Your task to perform on an android device: Do I have any events tomorrow? Image 0: 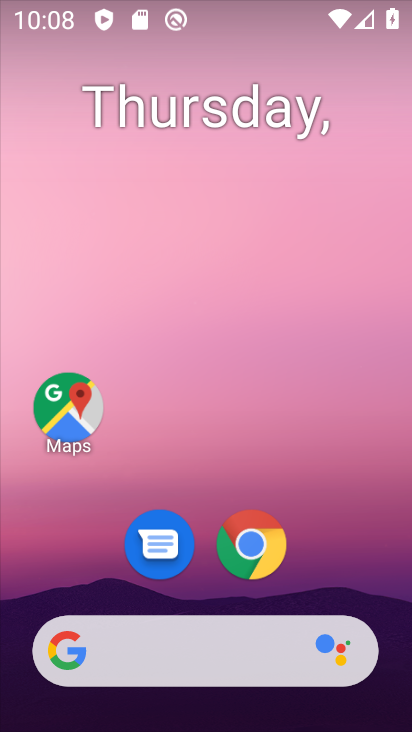
Step 0: press home button
Your task to perform on an android device: Do I have any events tomorrow? Image 1: 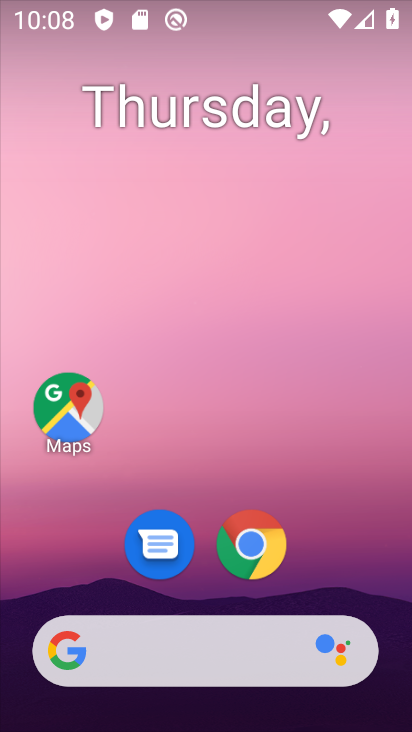
Step 1: drag from (223, 327) to (237, 115)
Your task to perform on an android device: Do I have any events tomorrow? Image 2: 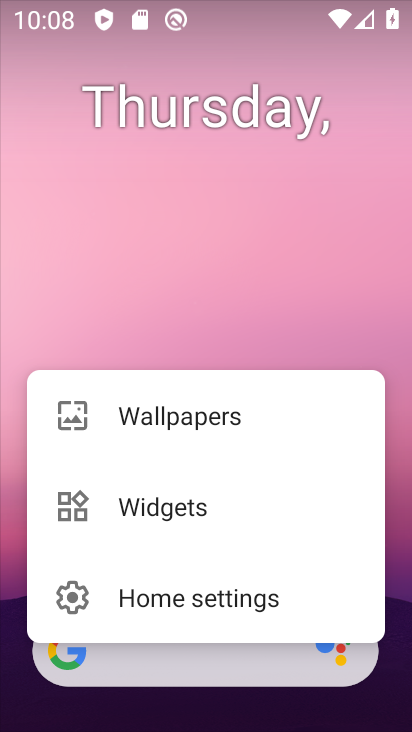
Step 2: click (324, 274)
Your task to perform on an android device: Do I have any events tomorrow? Image 3: 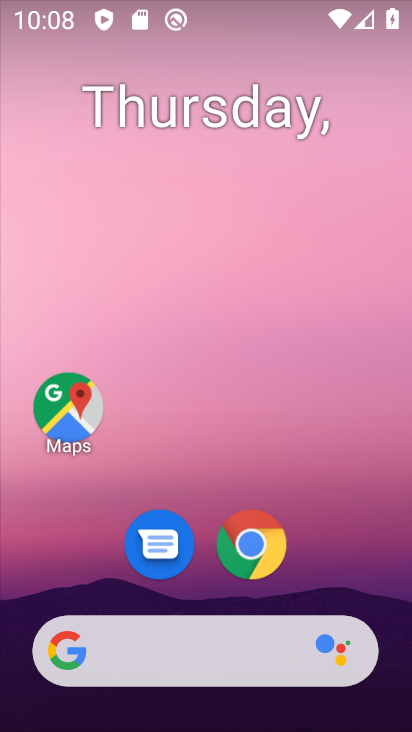
Step 3: drag from (307, 587) to (338, 65)
Your task to perform on an android device: Do I have any events tomorrow? Image 4: 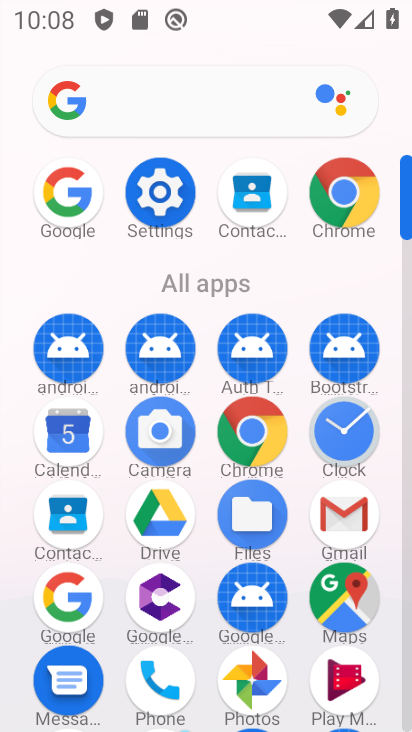
Step 4: click (68, 428)
Your task to perform on an android device: Do I have any events tomorrow? Image 5: 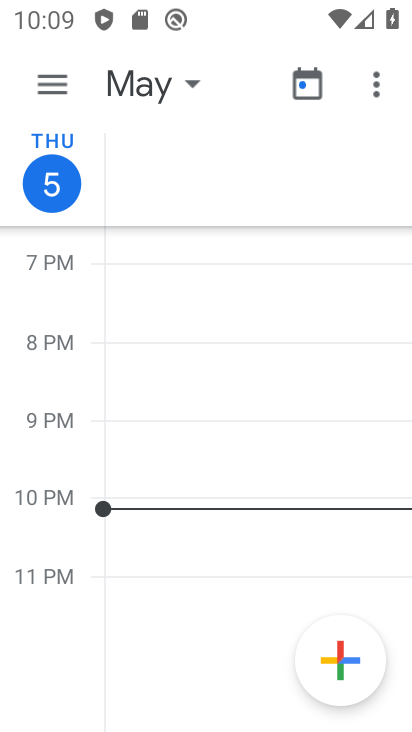
Step 5: click (87, 192)
Your task to perform on an android device: Do I have any events tomorrow? Image 6: 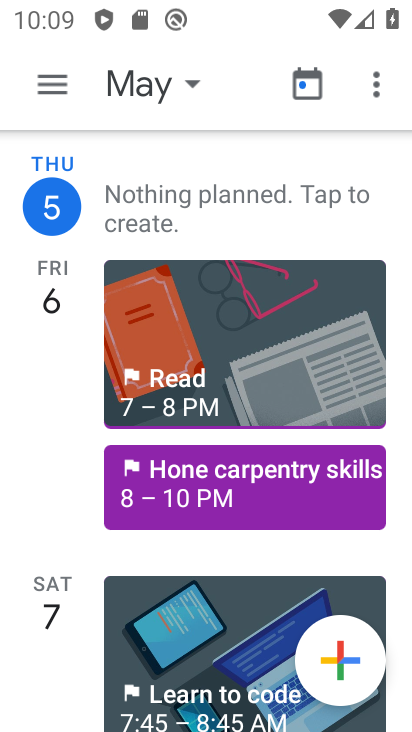
Step 6: click (75, 318)
Your task to perform on an android device: Do I have any events tomorrow? Image 7: 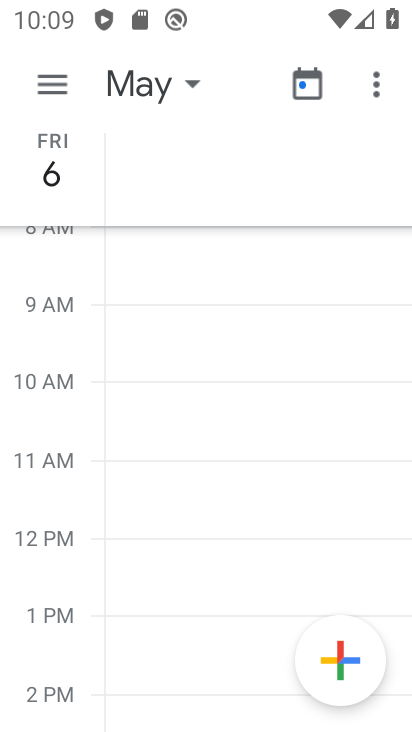
Step 7: click (58, 81)
Your task to perform on an android device: Do I have any events tomorrow? Image 8: 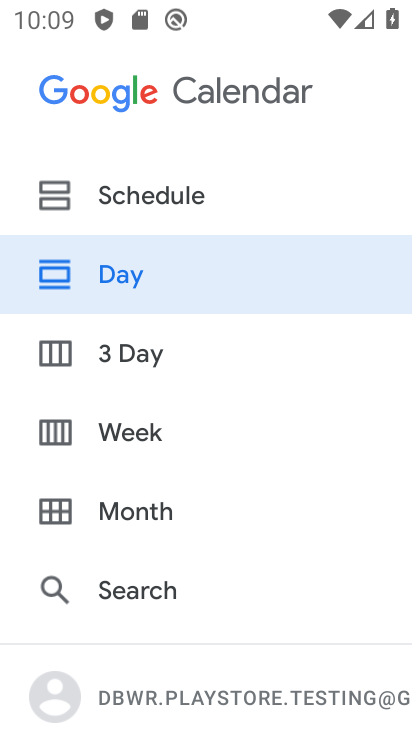
Step 8: drag from (140, 290) to (170, 139)
Your task to perform on an android device: Do I have any events tomorrow? Image 9: 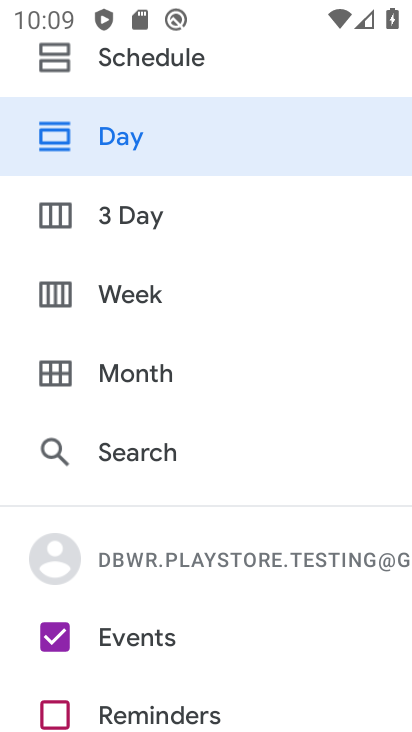
Step 9: drag from (168, 591) to (232, 197)
Your task to perform on an android device: Do I have any events tomorrow? Image 10: 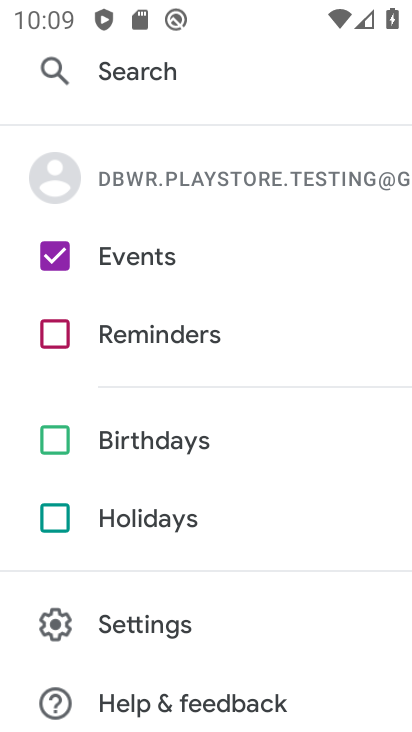
Step 10: drag from (157, 292) to (169, 730)
Your task to perform on an android device: Do I have any events tomorrow? Image 11: 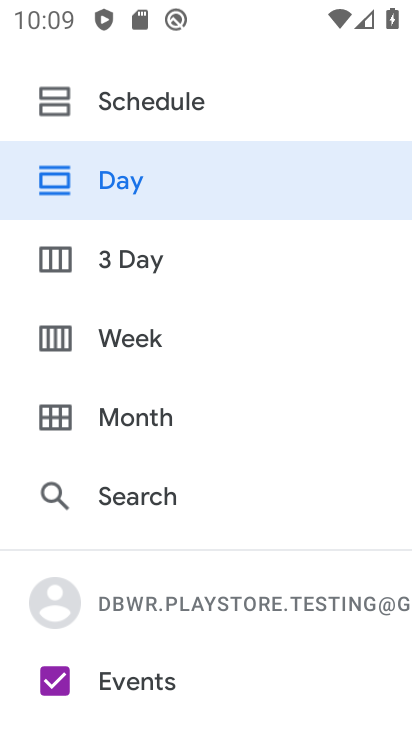
Step 11: click (92, 182)
Your task to perform on an android device: Do I have any events tomorrow? Image 12: 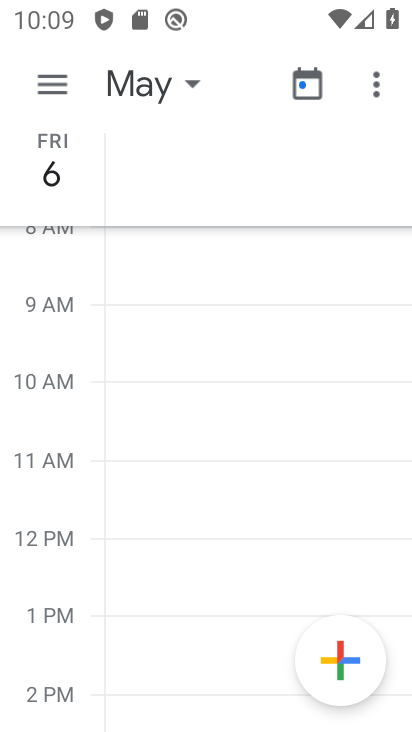
Step 12: task complete